Your task to perform on an android device: See recent photos Image 0: 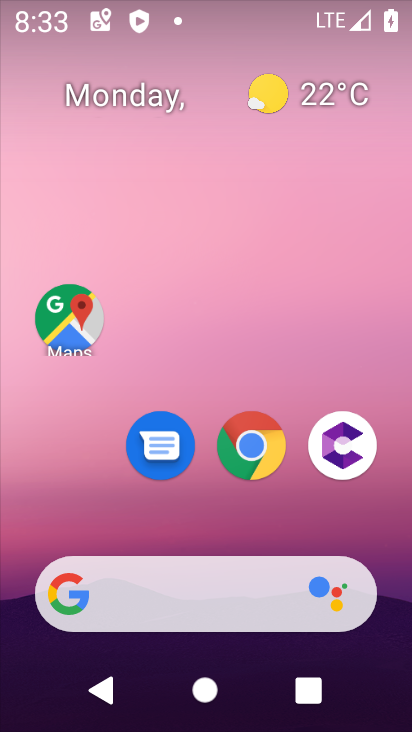
Step 0: drag from (213, 512) to (194, 144)
Your task to perform on an android device: See recent photos Image 1: 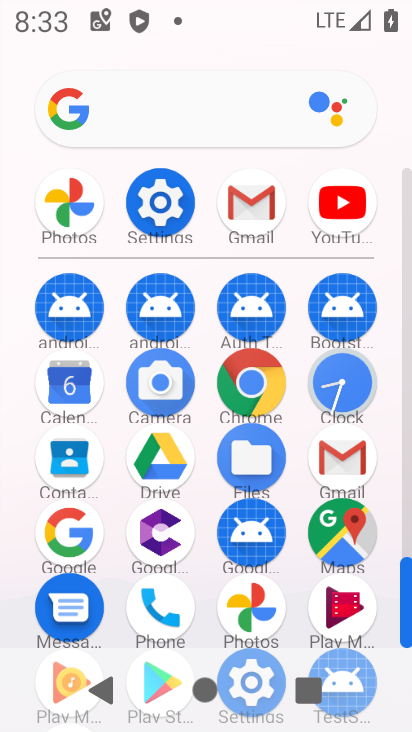
Step 1: click (57, 217)
Your task to perform on an android device: See recent photos Image 2: 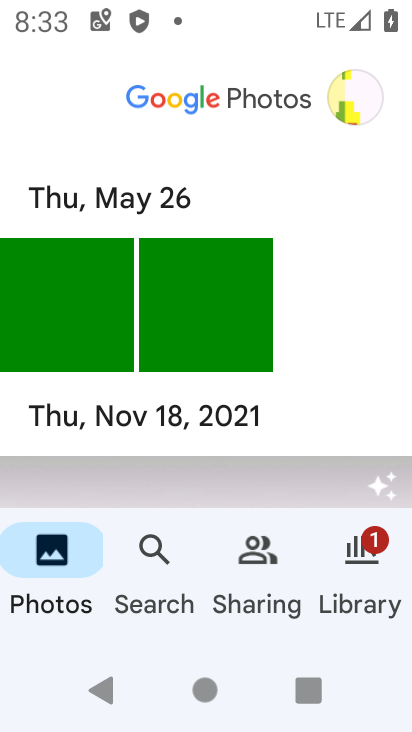
Step 2: task complete